Your task to perform on an android device: turn off smart reply in the gmail app Image 0: 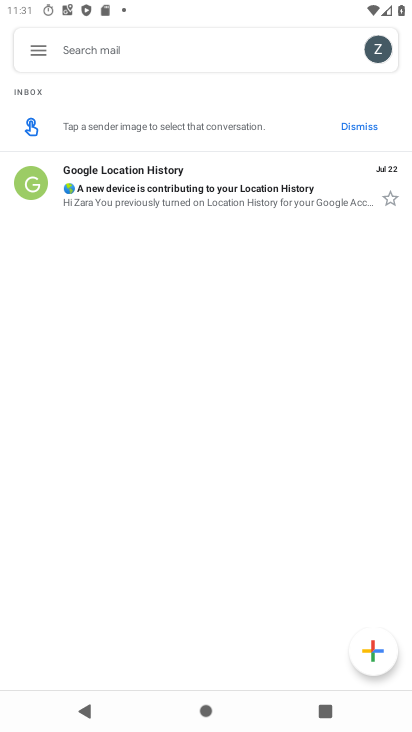
Step 0: click (27, 48)
Your task to perform on an android device: turn off smart reply in the gmail app Image 1: 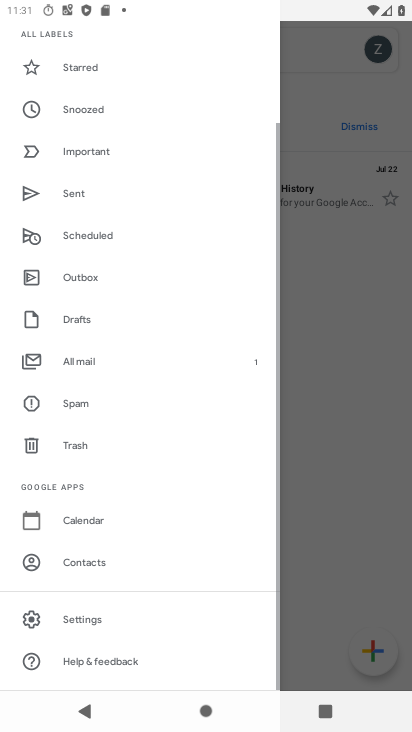
Step 1: click (151, 605)
Your task to perform on an android device: turn off smart reply in the gmail app Image 2: 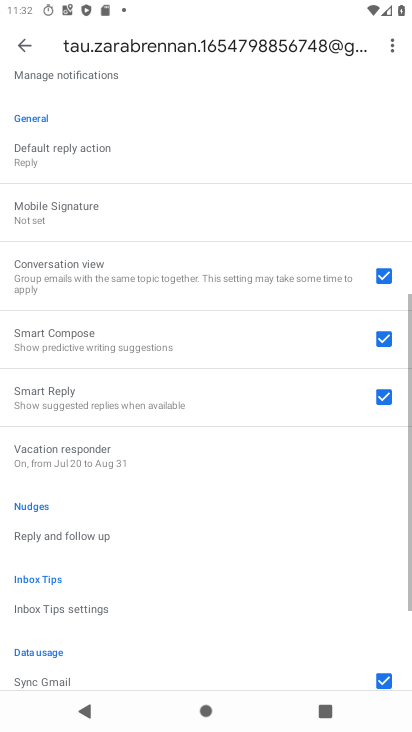
Step 2: drag from (148, 602) to (170, 227)
Your task to perform on an android device: turn off smart reply in the gmail app Image 3: 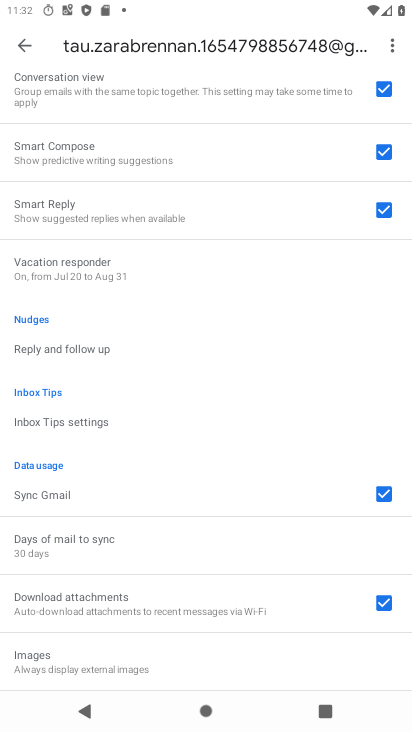
Step 3: click (384, 214)
Your task to perform on an android device: turn off smart reply in the gmail app Image 4: 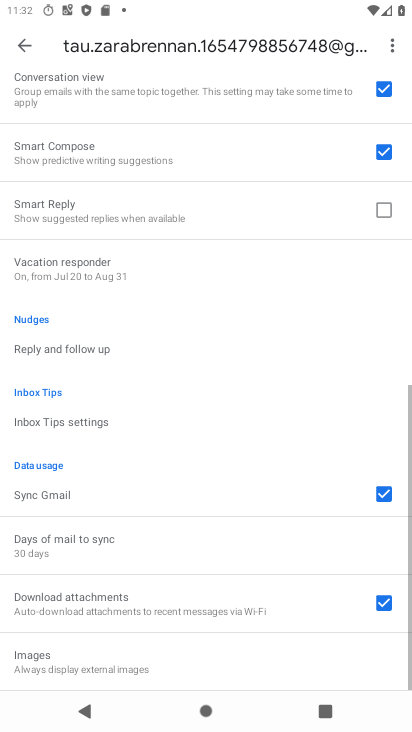
Step 4: task complete